Your task to perform on an android device: toggle priority inbox in the gmail app Image 0: 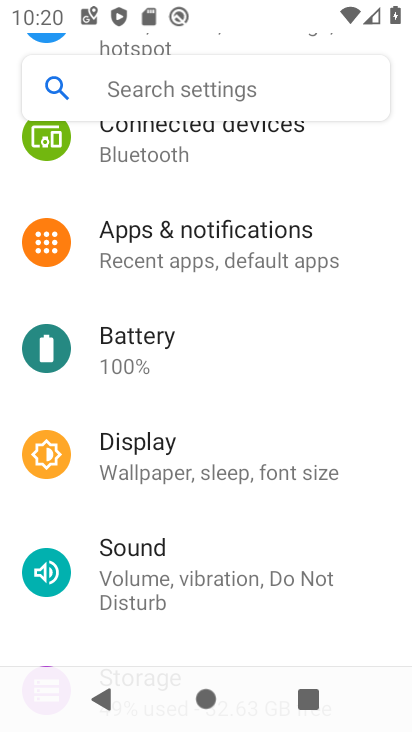
Step 0: press home button
Your task to perform on an android device: toggle priority inbox in the gmail app Image 1: 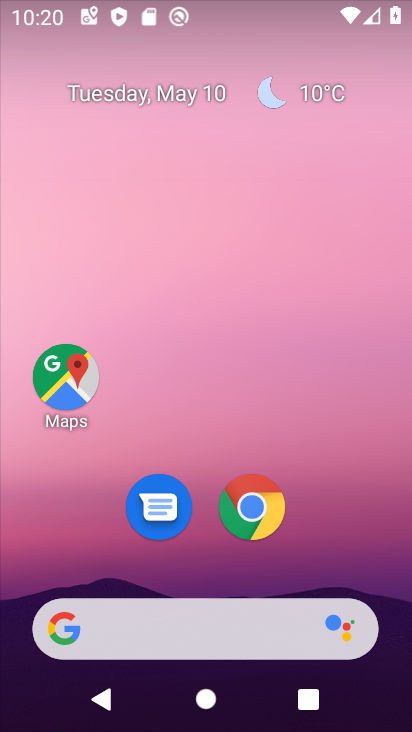
Step 1: drag from (317, 444) to (323, 166)
Your task to perform on an android device: toggle priority inbox in the gmail app Image 2: 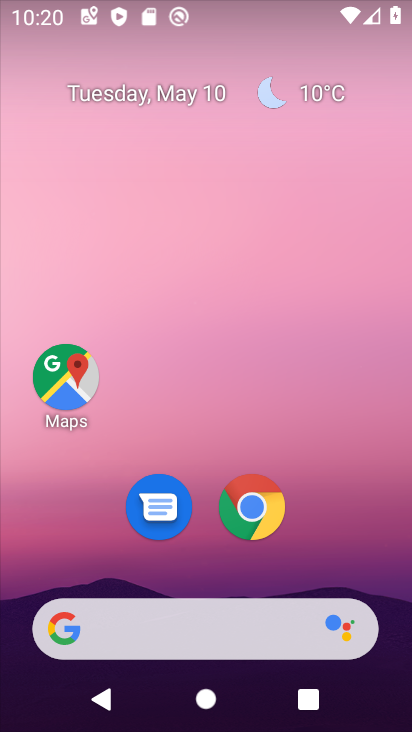
Step 2: drag from (346, 564) to (335, 162)
Your task to perform on an android device: toggle priority inbox in the gmail app Image 3: 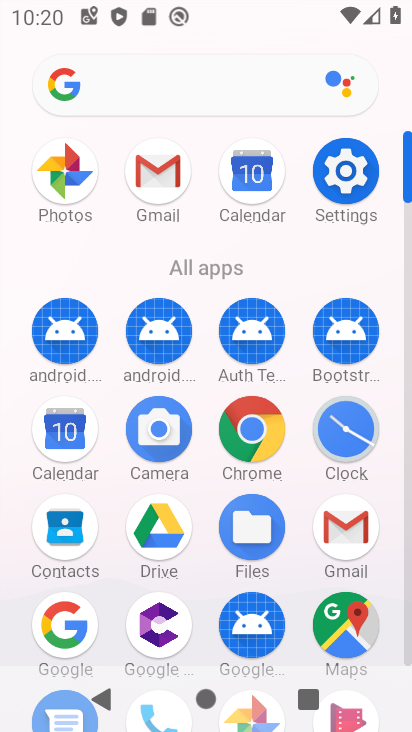
Step 3: click (346, 529)
Your task to perform on an android device: toggle priority inbox in the gmail app Image 4: 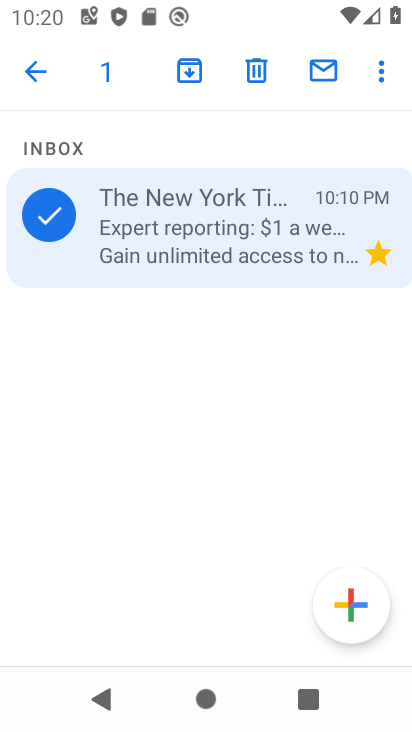
Step 4: click (42, 66)
Your task to perform on an android device: toggle priority inbox in the gmail app Image 5: 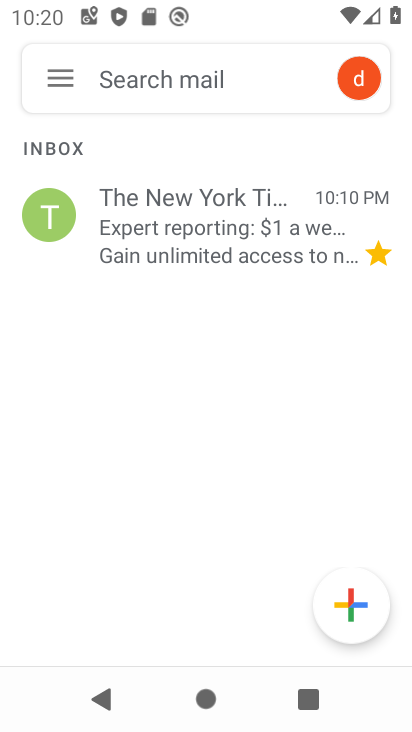
Step 5: click (76, 69)
Your task to perform on an android device: toggle priority inbox in the gmail app Image 6: 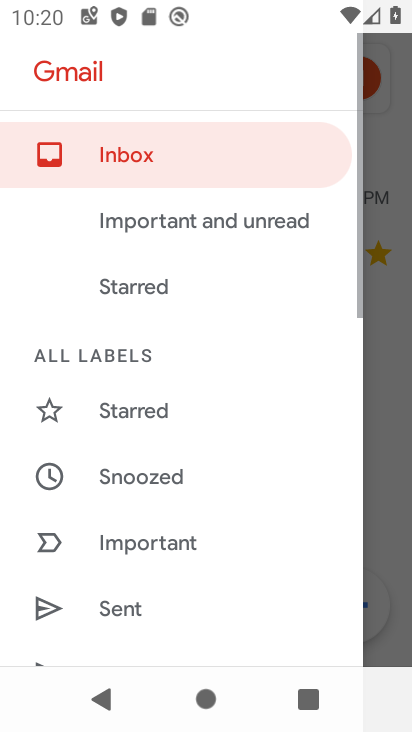
Step 6: drag from (170, 578) to (215, 143)
Your task to perform on an android device: toggle priority inbox in the gmail app Image 7: 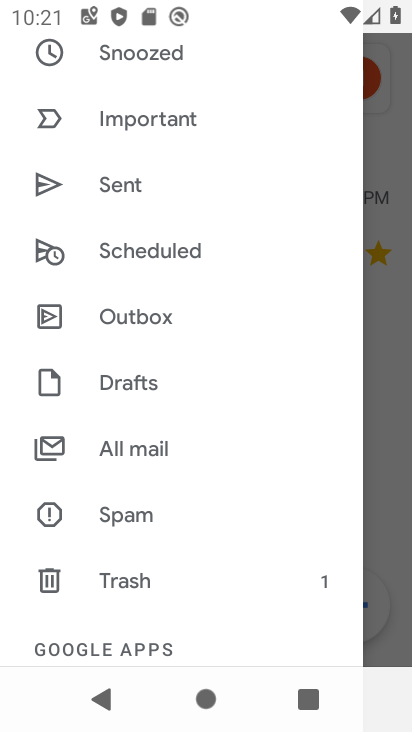
Step 7: drag from (219, 604) to (242, 143)
Your task to perform on an android device: toggle priority inbox in the gmail app Image 8: 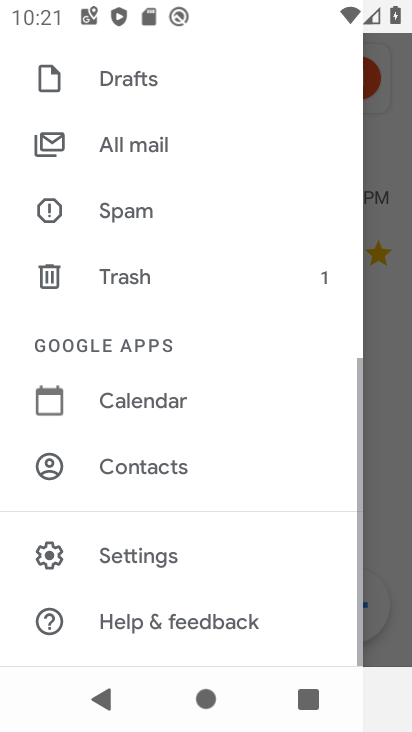
Step 8: click (145, 553)
Your task to perform on an android device: toggle priority inbox in the gmail app Image 9: 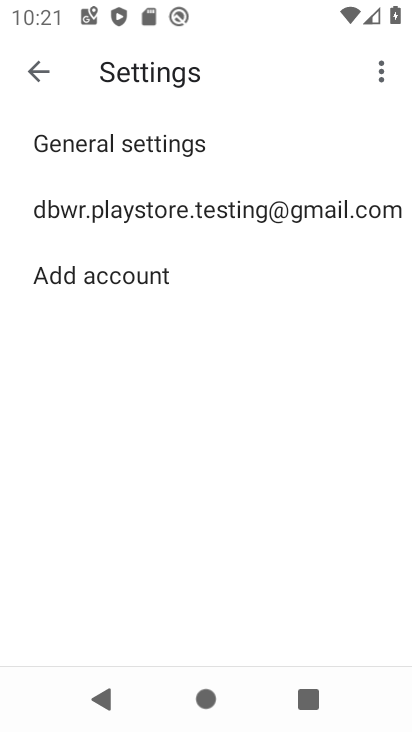
Step 9: click (152, 215)
Your task to perform on an android device: toggle priority inbox in the gmail app Image 10: 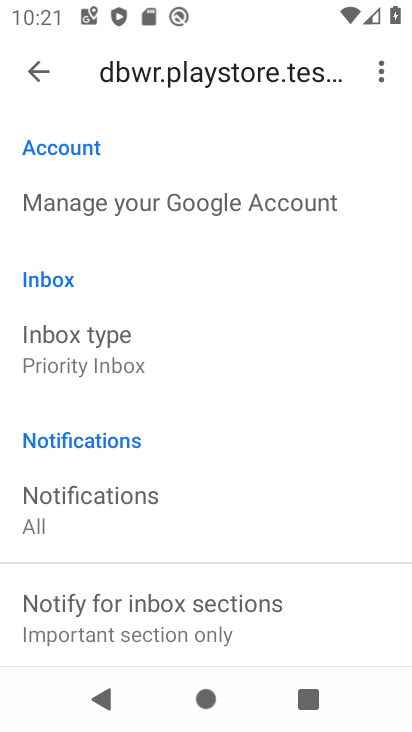
Step 10: click (94, 364)
Your task to perform on an android device: toggle priority inbox in the gmail app Image 11: 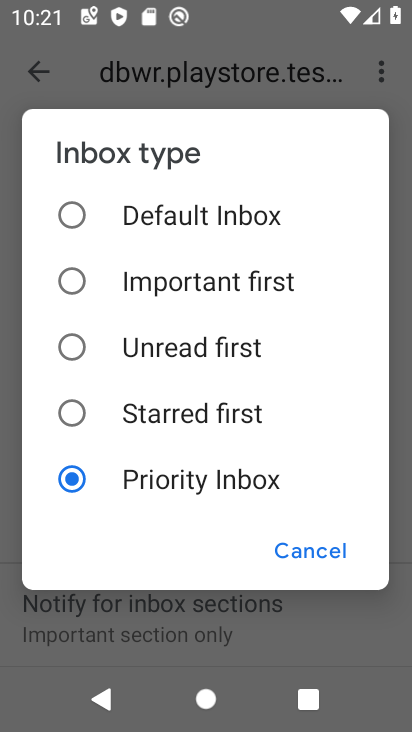
Step 11: click (105, 215)
Your task to perform on an android device: toggle priority inbox in the gmail app Image 12: 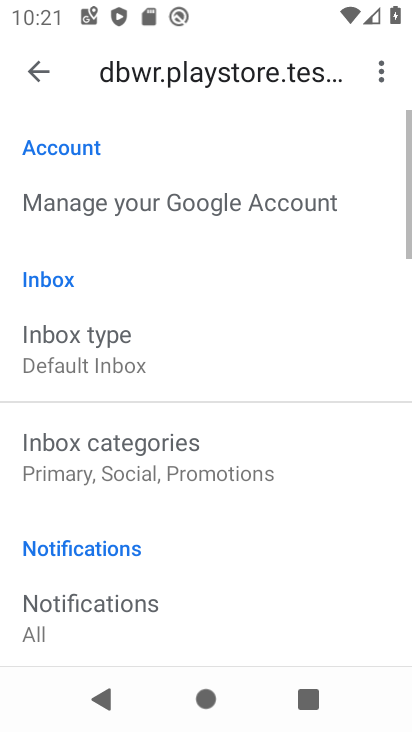
Step 12: task complete